Your task to perform on an android device: Add macbook to the cart on amazon.com Image 0: 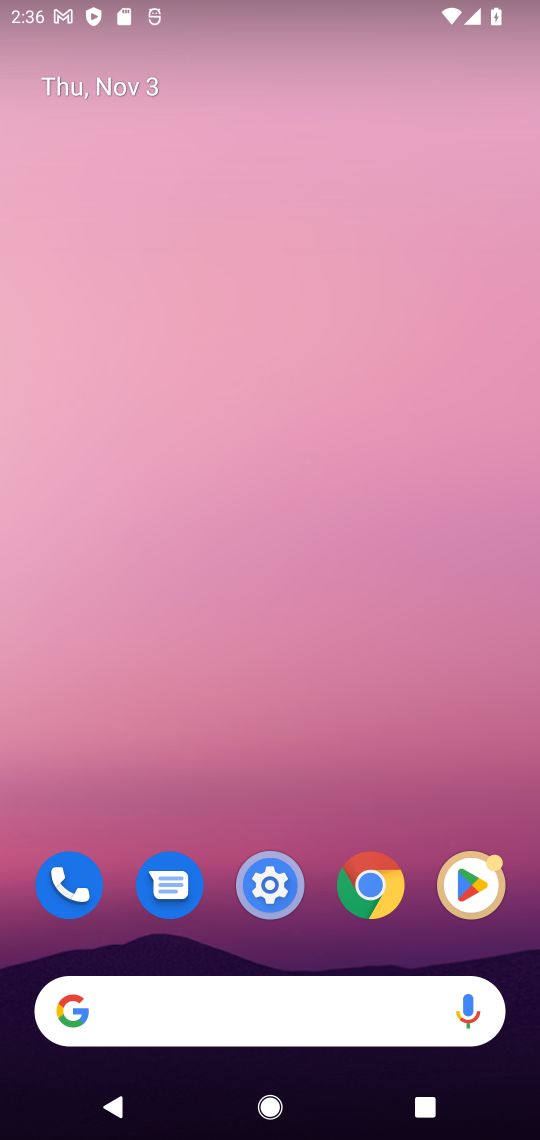
Step 0: drag from (316, 316) to (303, 172)
Your task to perform on an android device: Add macbook to the cart on amazon.com Image 1: 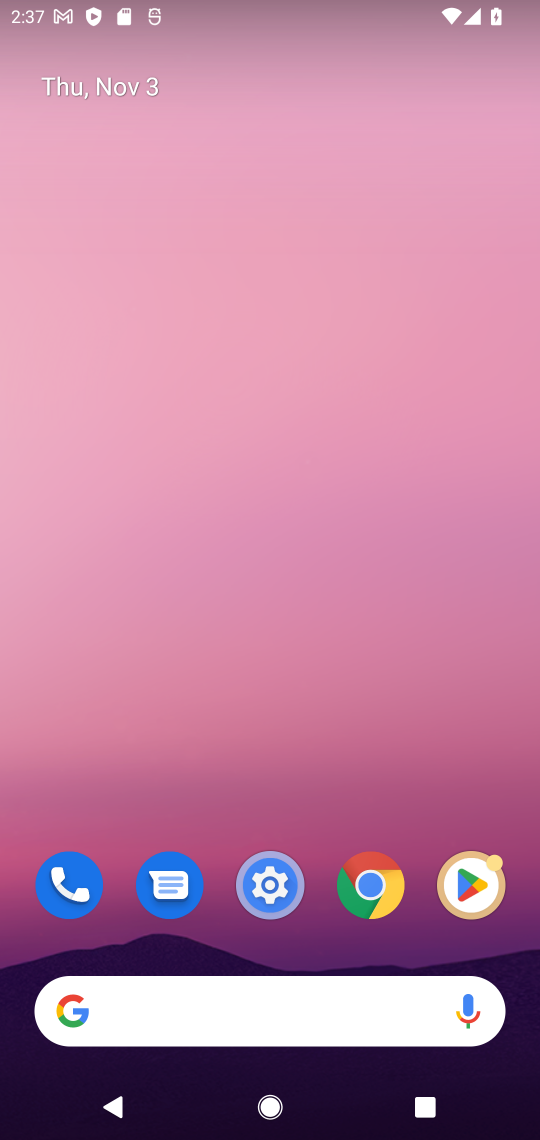
Step 1: drag from (312, 834) to (304, 85)
Your task to perform on an android device: Add macbook to the cart on amazon.com Image 2: 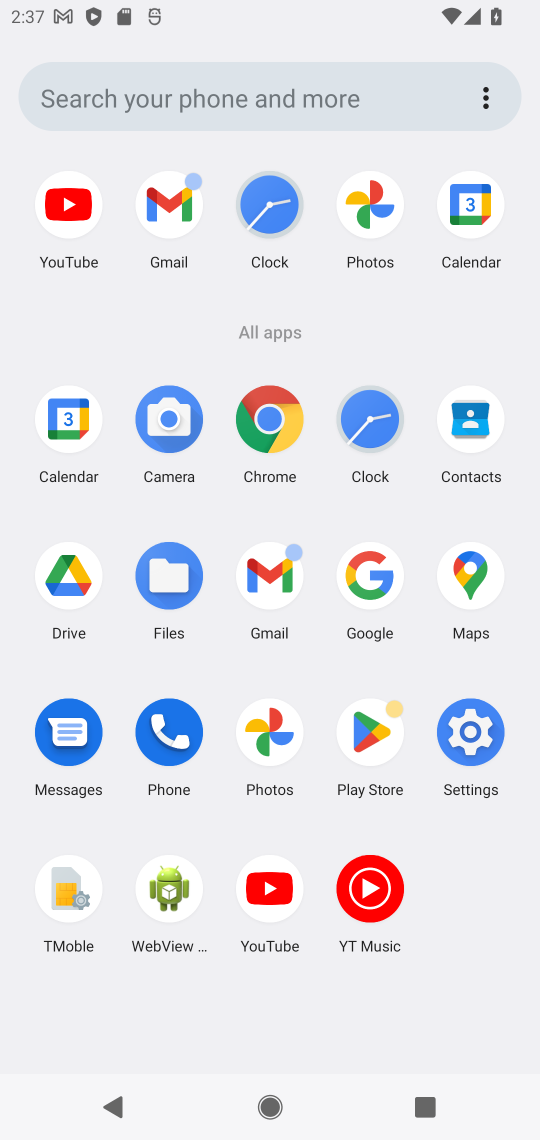
Step 2: click (265, 413)
Your task to perform on an android device: Add macbook to the cart on amazon.com Image 3: 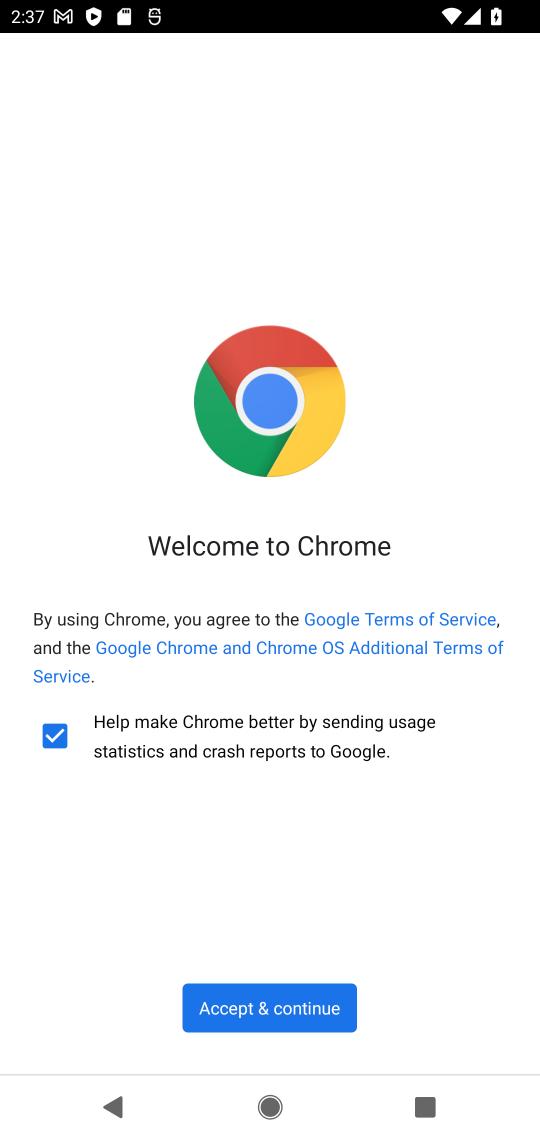
Step 3: click (262, 998)
Your task to perform on an android device: Add macbook to the cart on amazon.com Image 4: 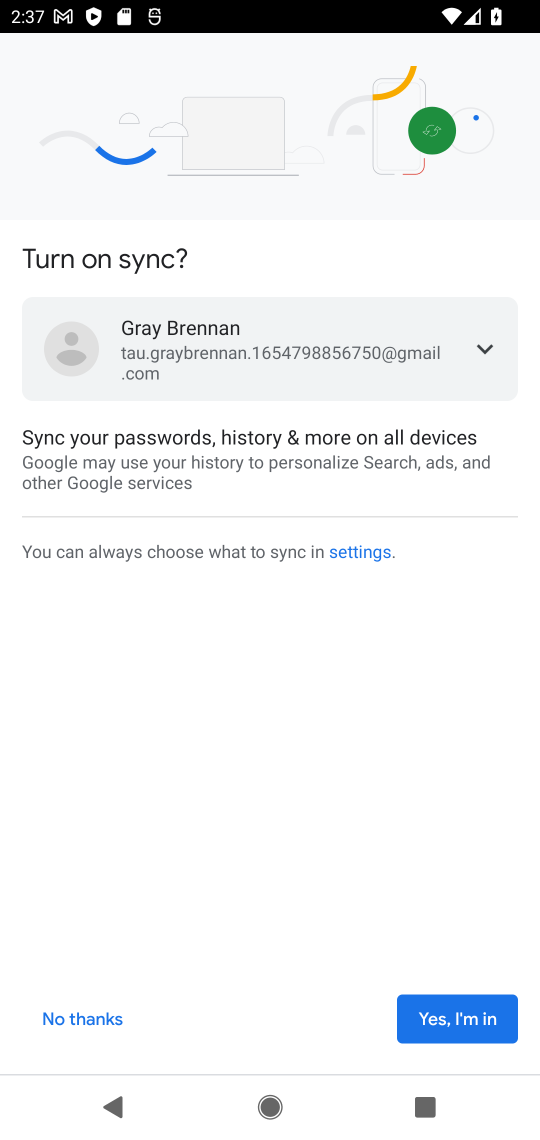
Step 4: click (465, 1014)
Your task to perform on an android device: Add macbook to the cart on amazon.com Image 5: 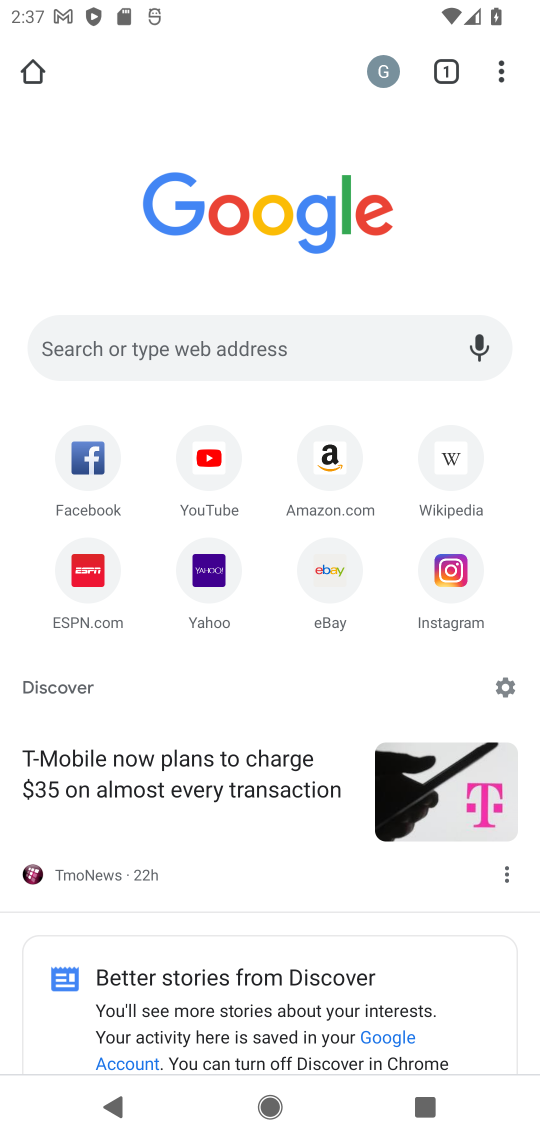
Step 5: click (175, 335)
Your task to perform on an android device: Add macbook to the cart on amazon.com Image 6: 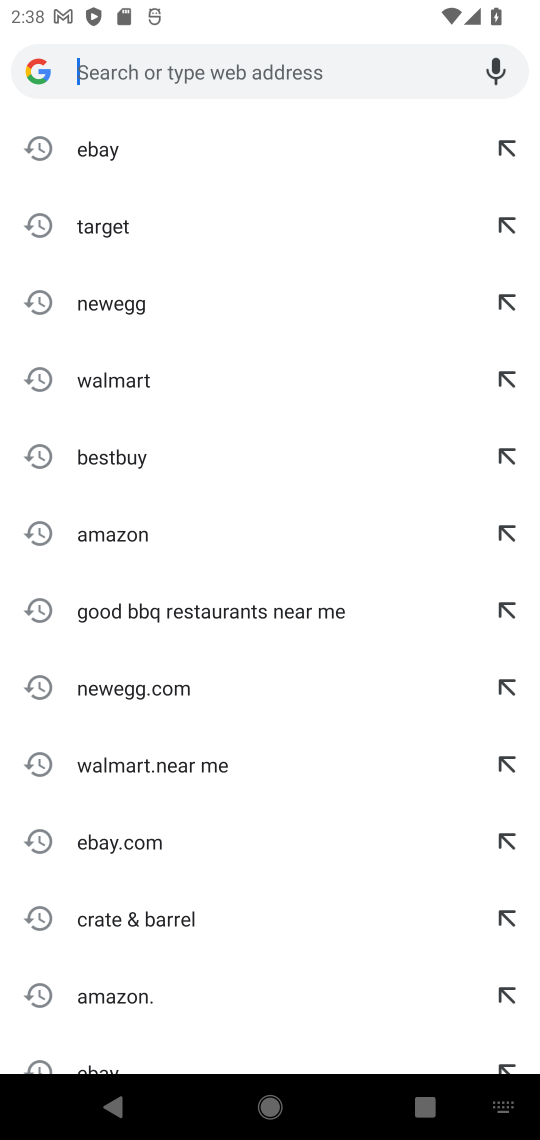
Step 6: click (150, 539)
Your task to perform on an android device: Add macbook to the cart on amazon.com Image 7: 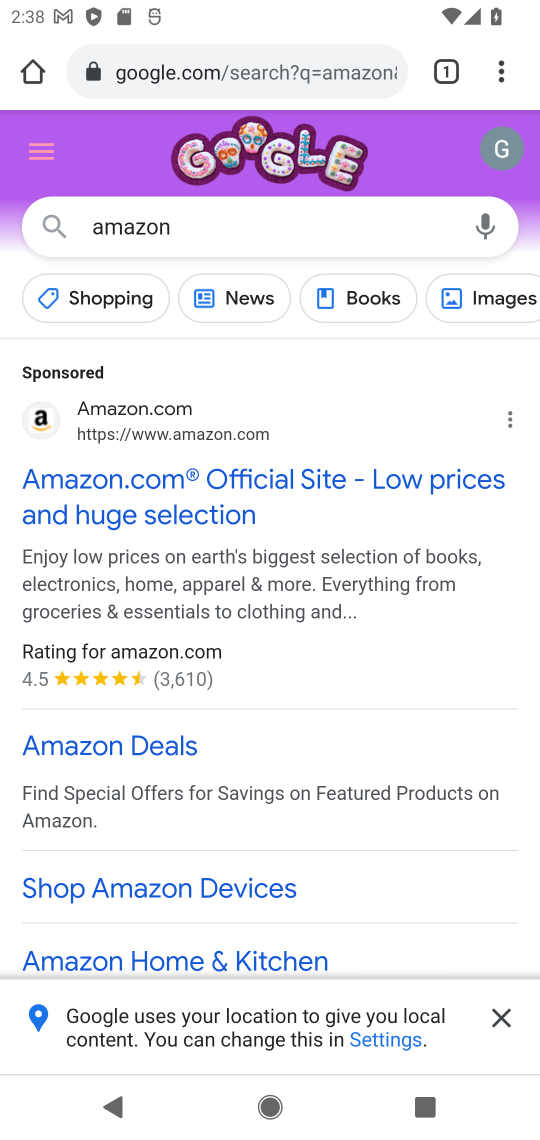
Step 7: click (509, 1015)
Your task to perform on an android device: Add macbook to the cart on amazon.com Image 8: 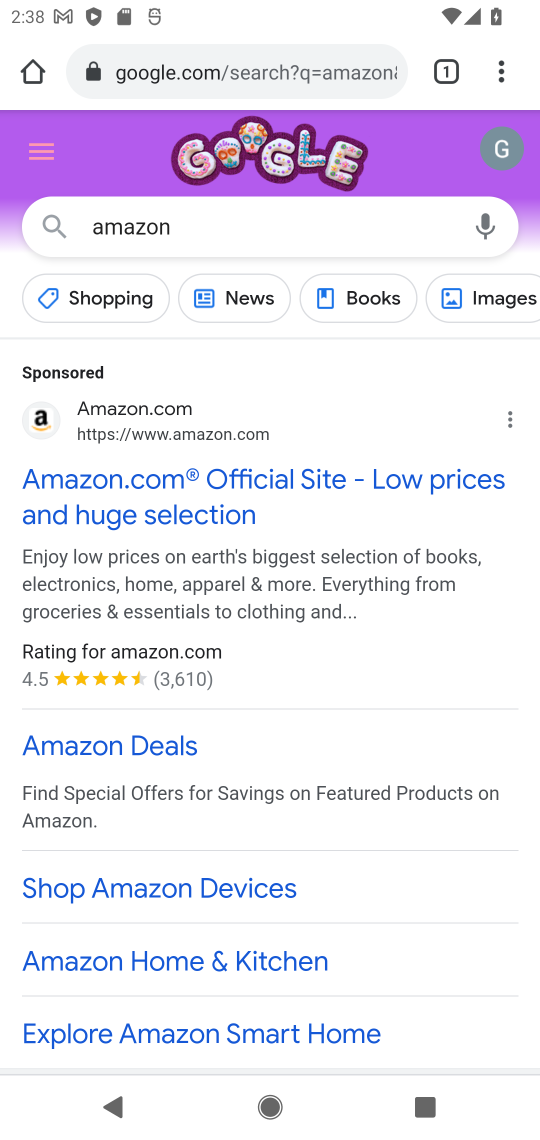
Step 8: click (138, 490)
Your task to perform on an android device: Add macbook to the cart on amazon.com Image 9: 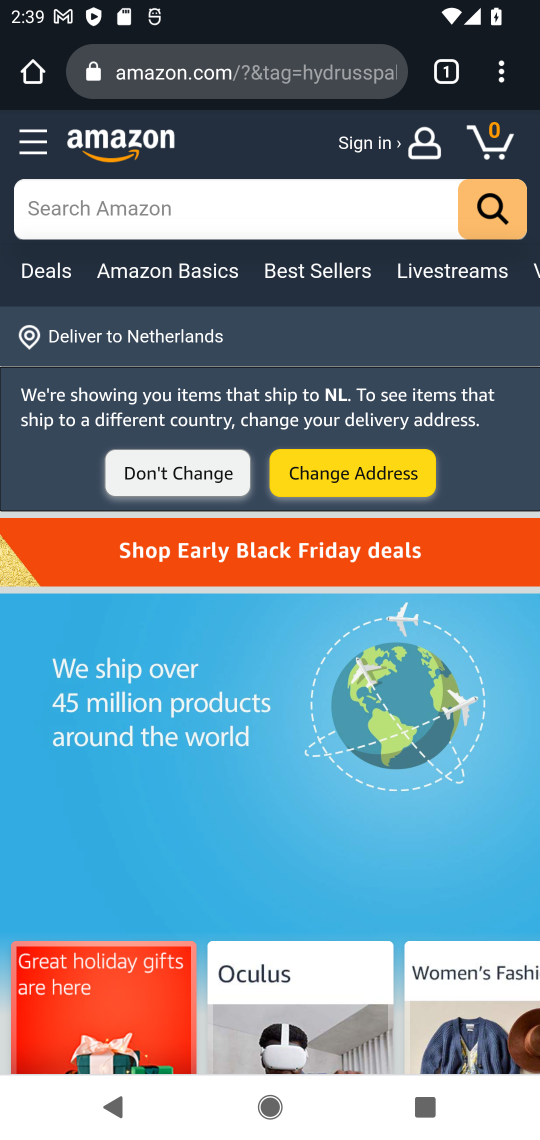
Step 9: click (122, 207)
Your task to perform on an android device: Add macbook to the cart on amazon.com Image 10: 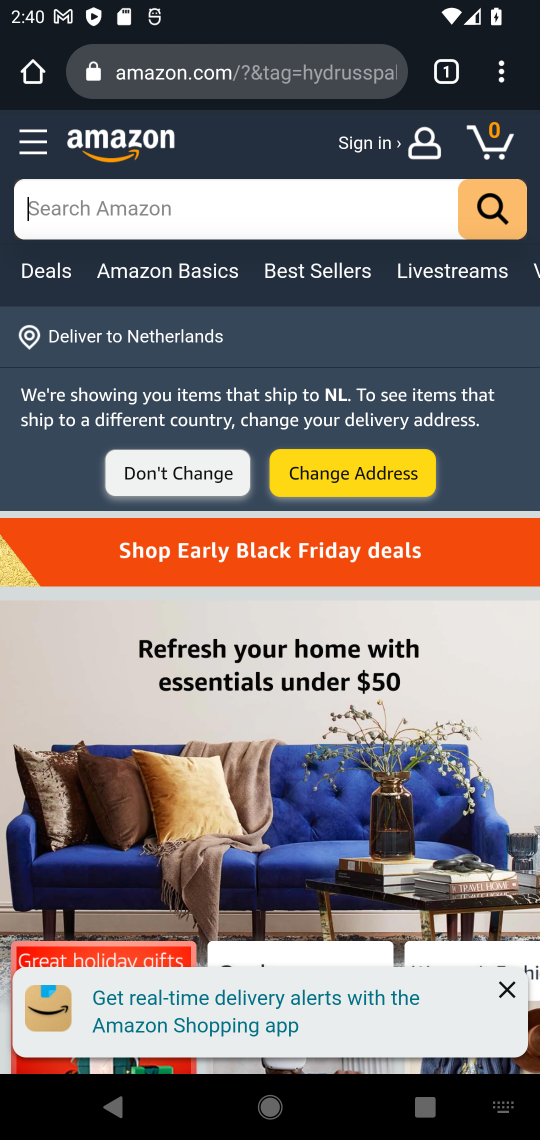
Step 10: type "macbook"
Your task to perform on an android device: Add macbook to the cart on amazon.com Image 11: 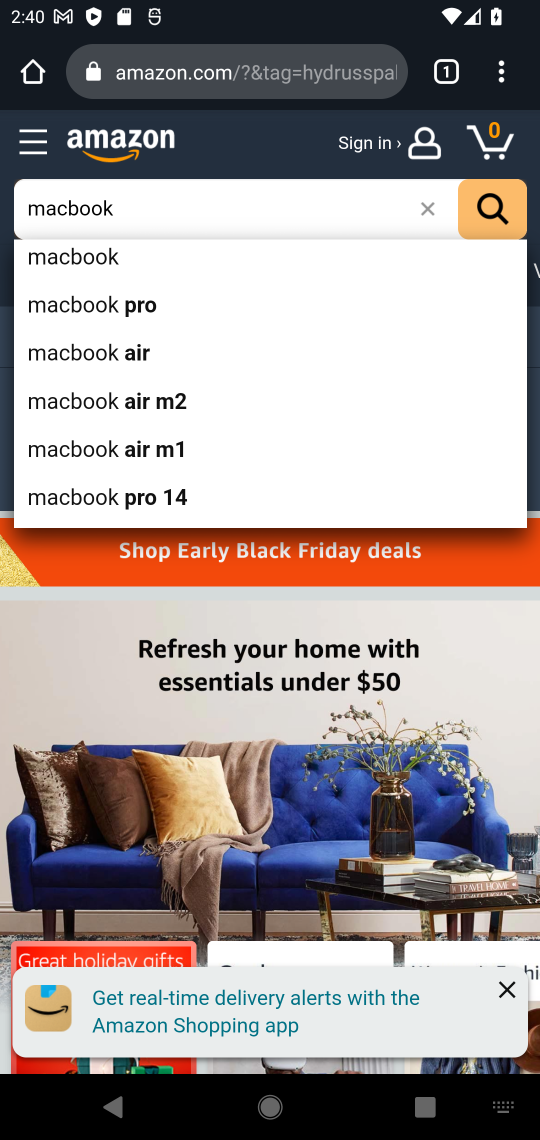
Step 11: click (84, 258)
Your task to perform on an android device: Add macbook to the cart on amazon.com Image 12: 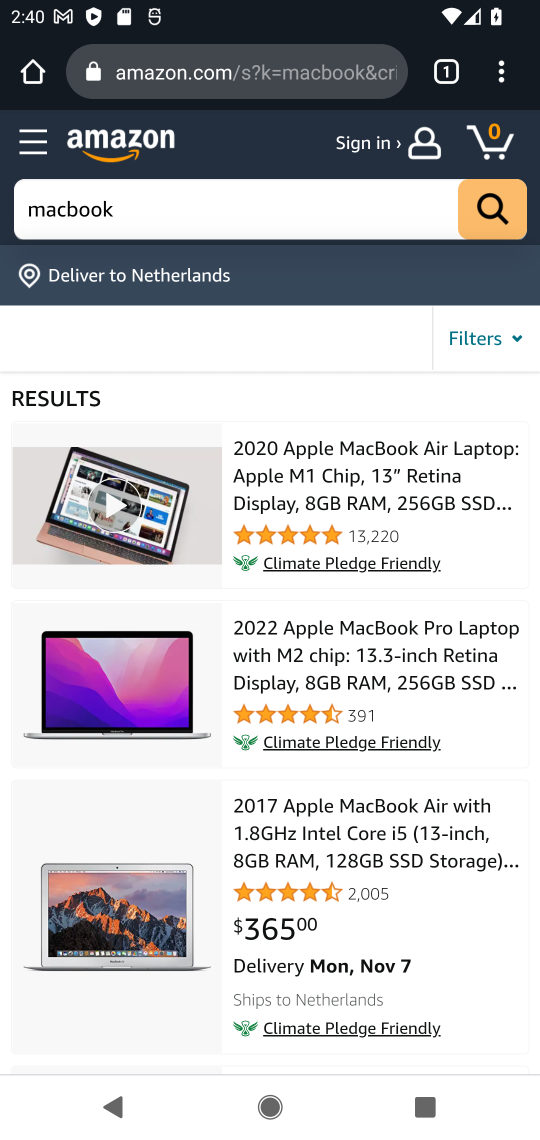
Step 12: click (289, 485)
Your task to perform on an android device: Add macbook to the cart on amazon.com Image 13: 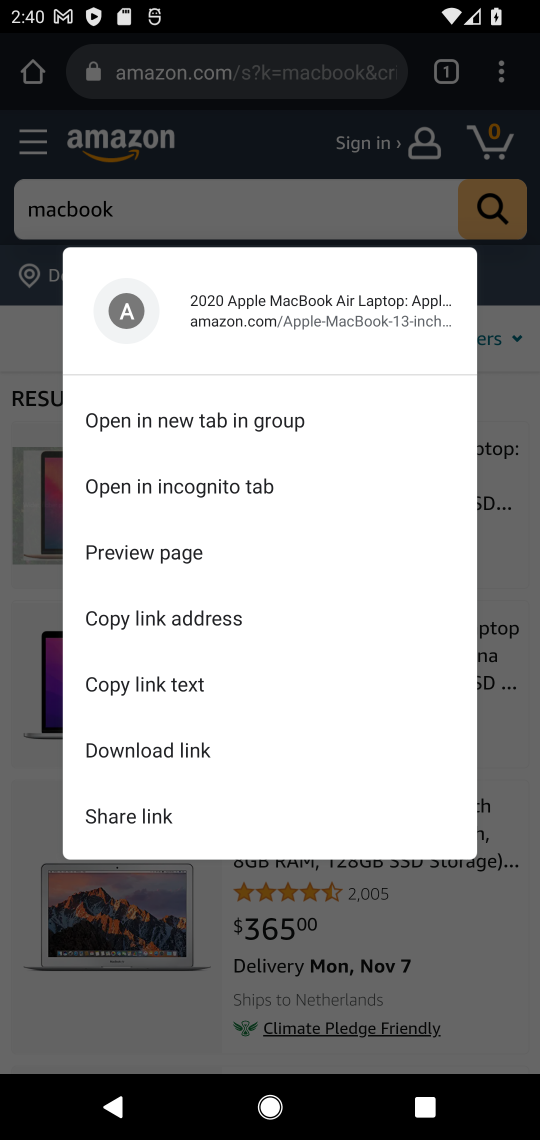
Step 13: click (23, 1017)
Your task to perform on an android device: Add macbook to the cart on amazon.com Image 14: 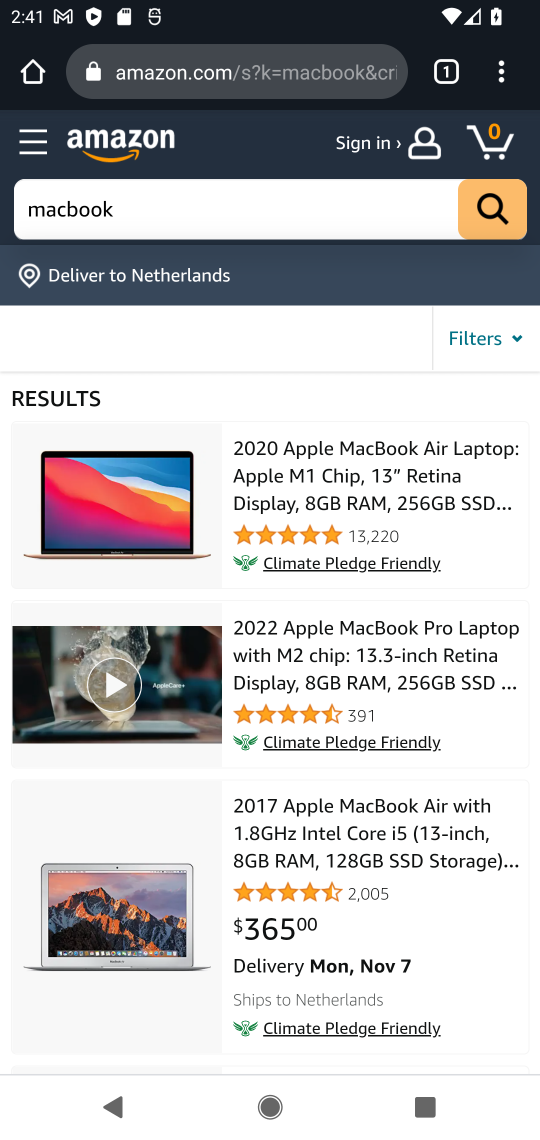
Step 14: click (415, 471)
Your task to perform on an android device: Add macbook to the cart on amazon.com Image 15: 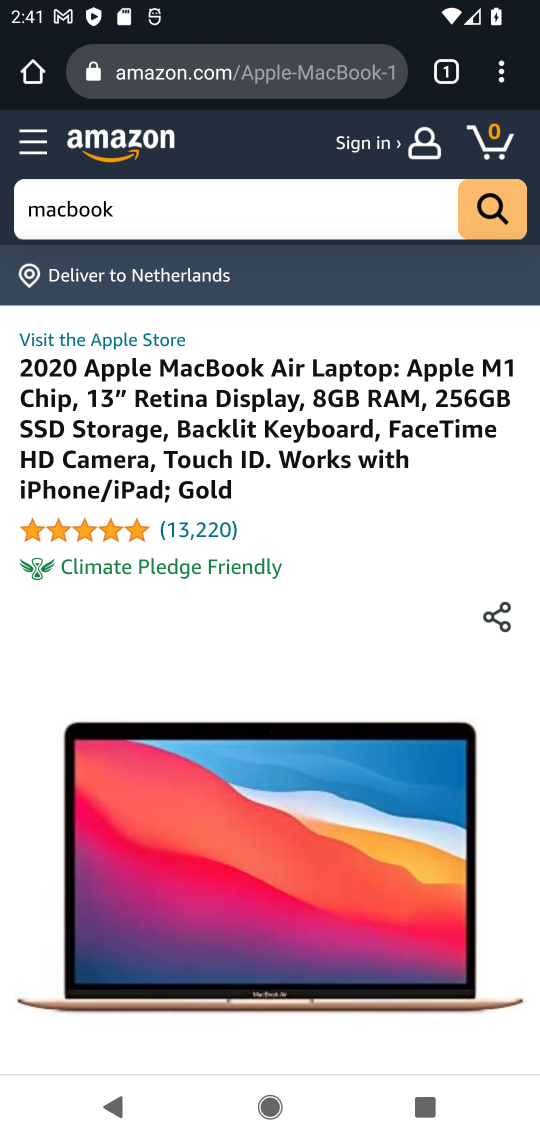
Step 15: drag from (46, 854) to (247, 176)
Your task to perform on an android device: Add macbook to the cart on amazon.com Image 16: 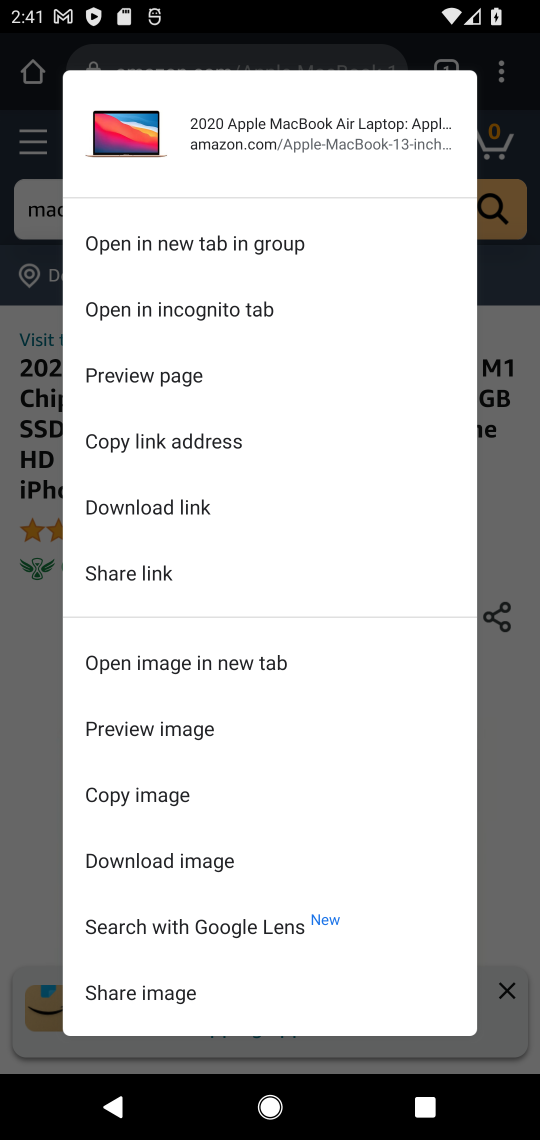
Step 16: click (25, 655)
Your task to perform on an android device: Add macbook to the cart on amazon.com Image 17: 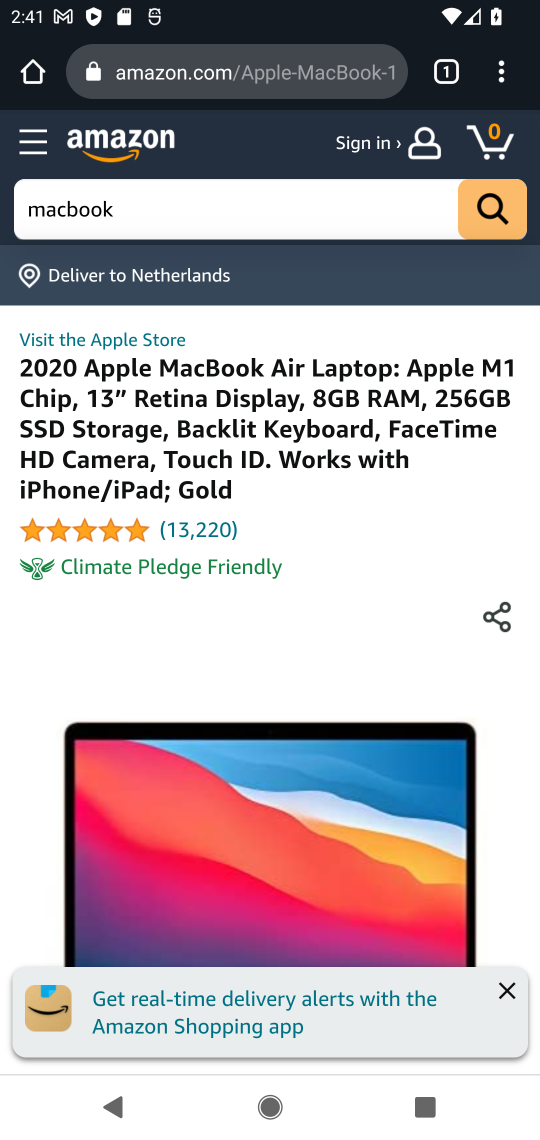
Step 17: drag from (244, 656) to (320, 215)
Your task to perform on an android device: Add macbook to the cart on amazon.com Image 18: 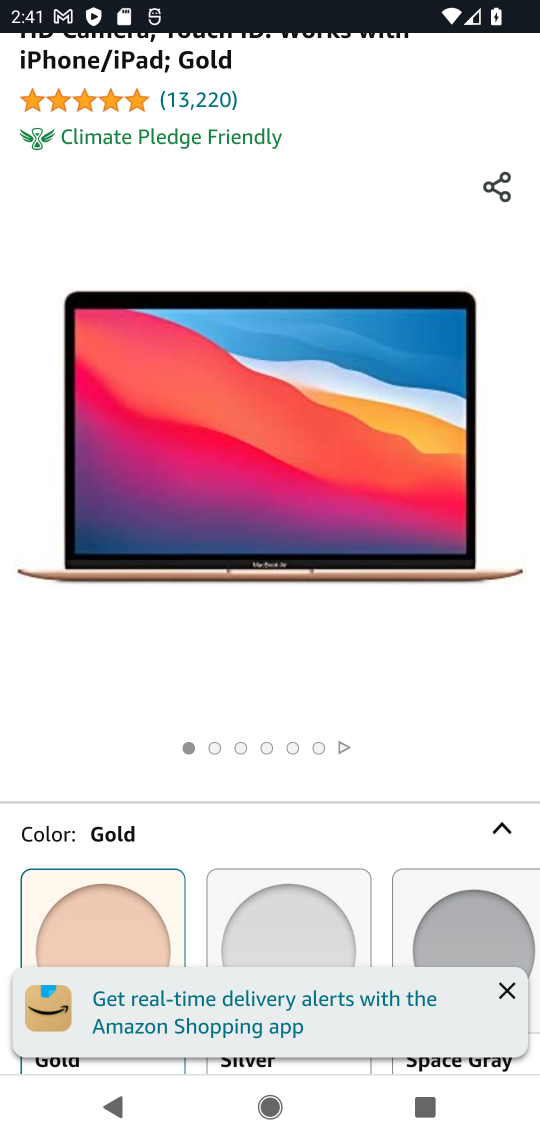
Step 18: drag from (320, 805) to (392, 375)
Your task to perform on an android device: Add macbook to the cart on amazon.com Image 19: 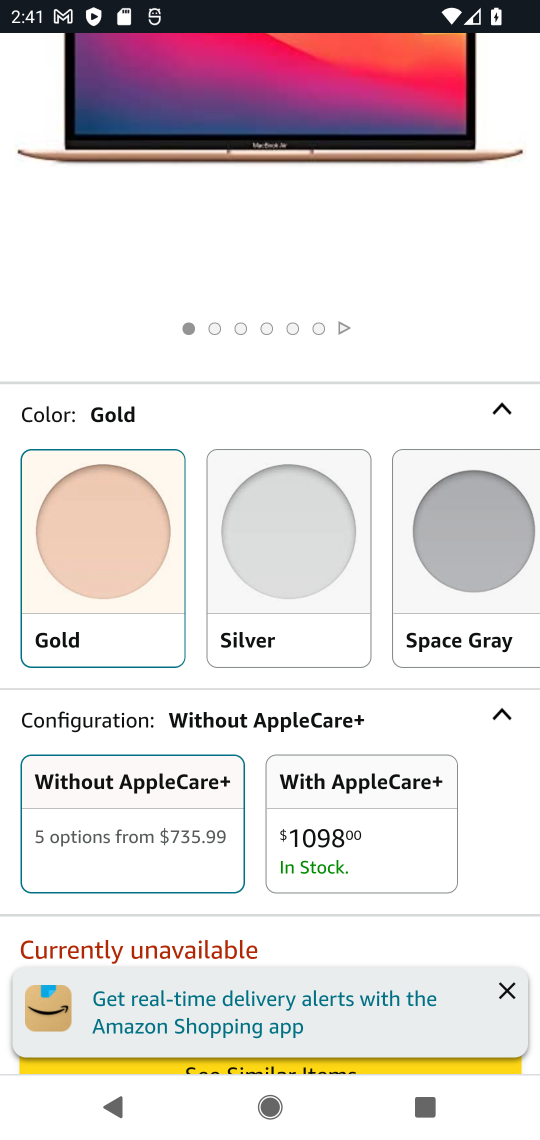
Step 19: drag from (512, 642) to (515, 481)
Your task to perform on an android device: Add macbook to the cart on amazon.com Image 20: 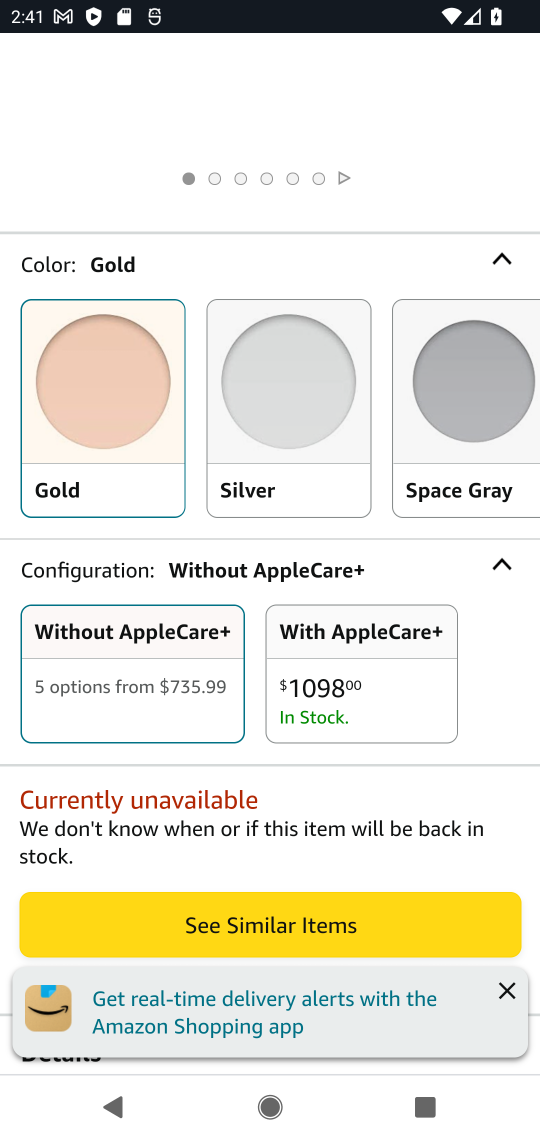
Step 20: click (268, 925)
Your task to perform on an android device: Add macbook to the cart on amazon.com Image 21: 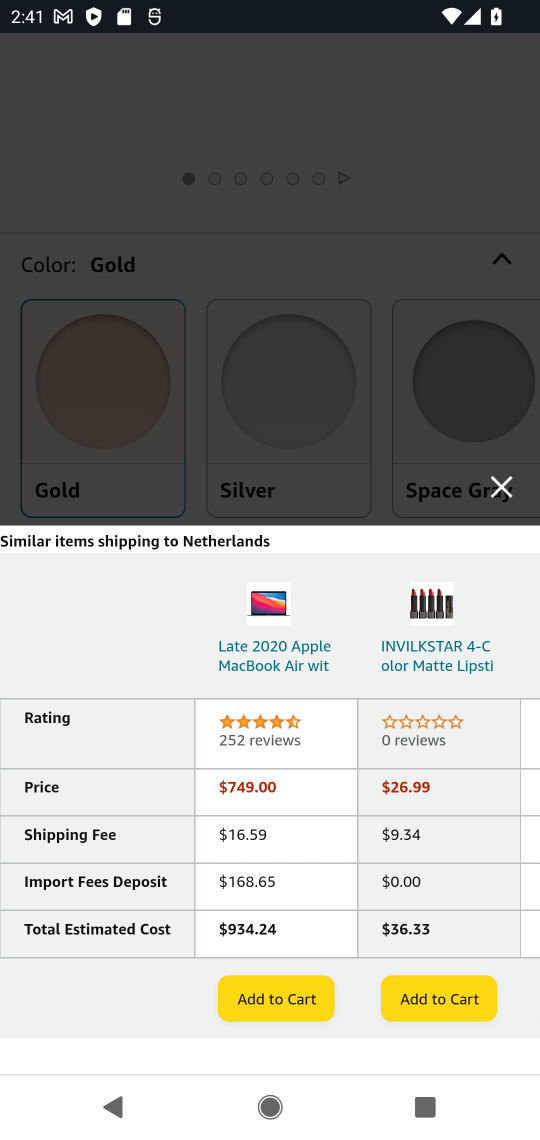
Step 21: click (285, 995)
Your task to perform on an android device: Add macbook to the cart on amazon.com Image 22: 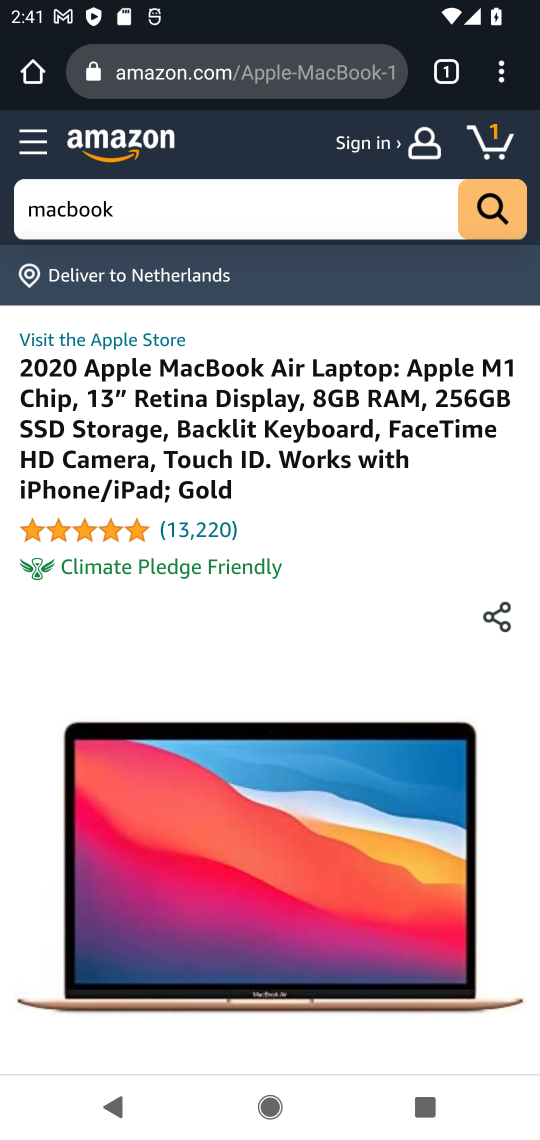
Step 22: drag from (247, 684) to (281, 175)
Your task to perform on an android device: Add macbook to the cart on amazon.com Image 23: 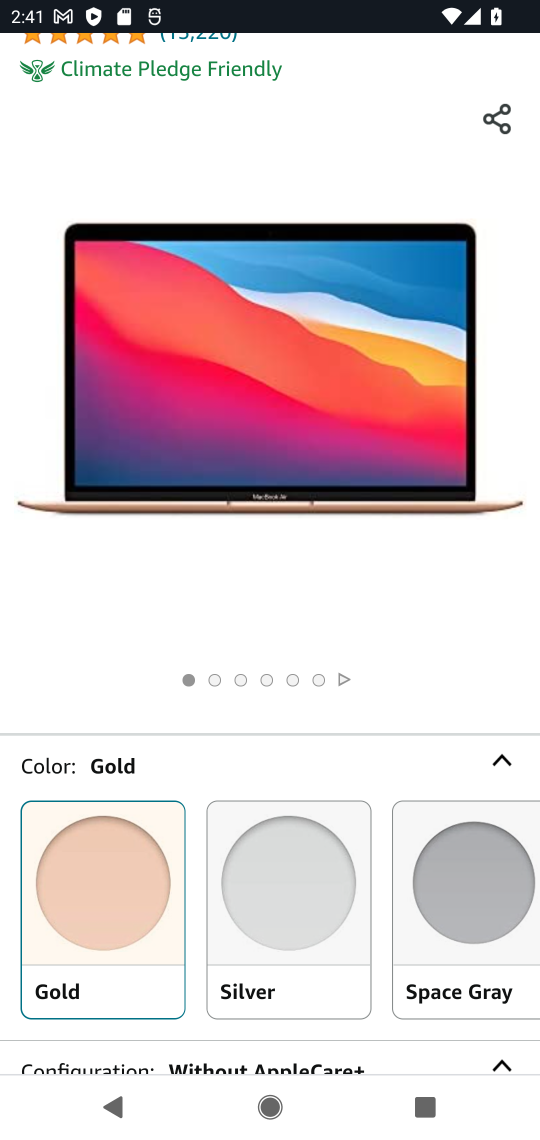
Step 23: drag from (299, 746) to (334, 360)
Your task to perform on an android device: Add macbook to the cart on amazon.com Image 24: 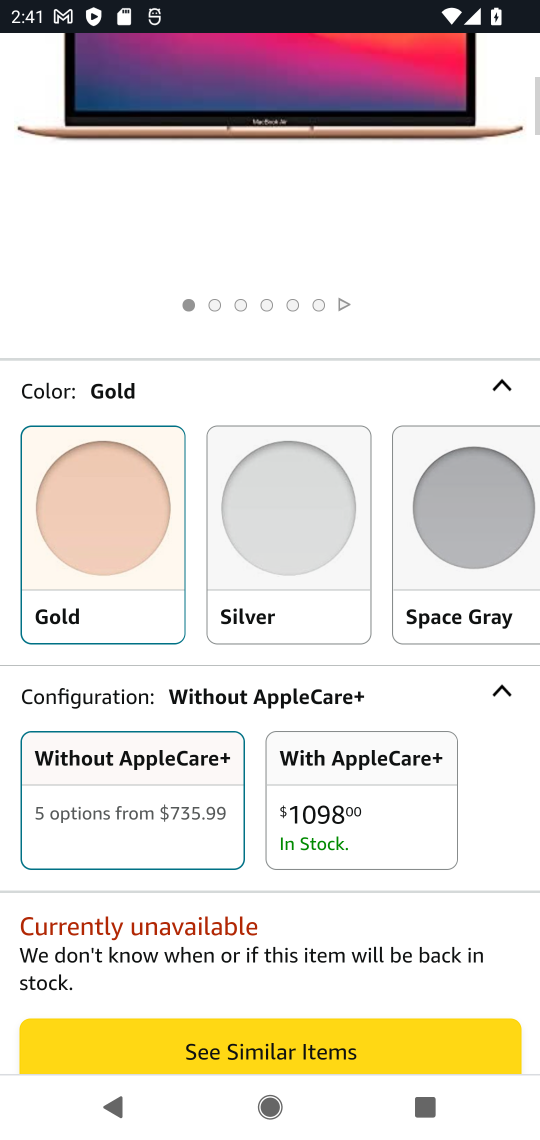
Step 24: drag from (369, 342) to (387, 1110)
Your task to perform on an android device: Add macbook to the cart on amazon.com Image 25: 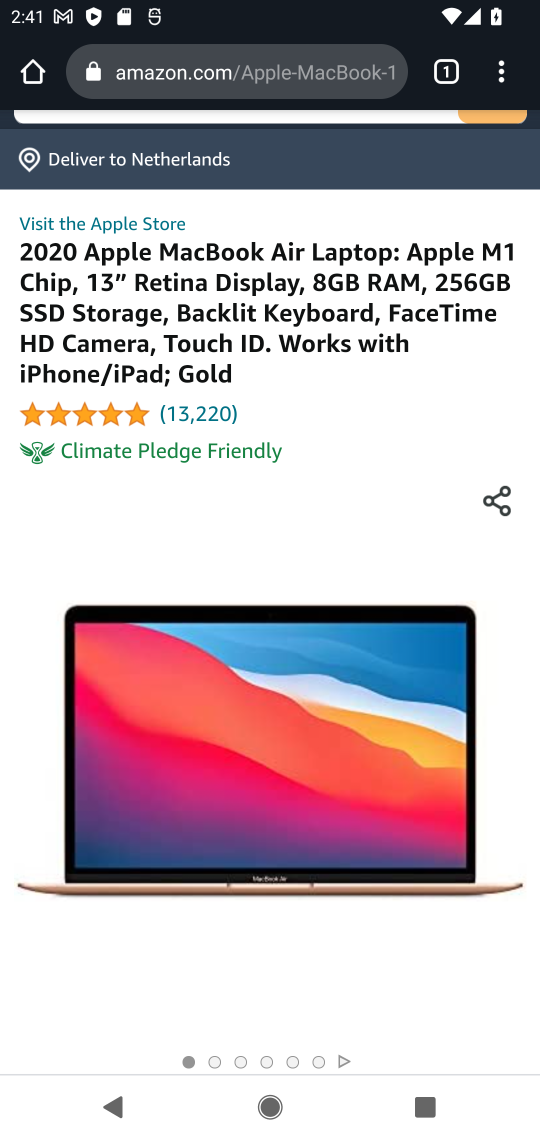
Step 25: drag from (330, 371) to (324, 931)
Your task to perform on an android device: Add macbook to the cart on amazon.com Image 26: 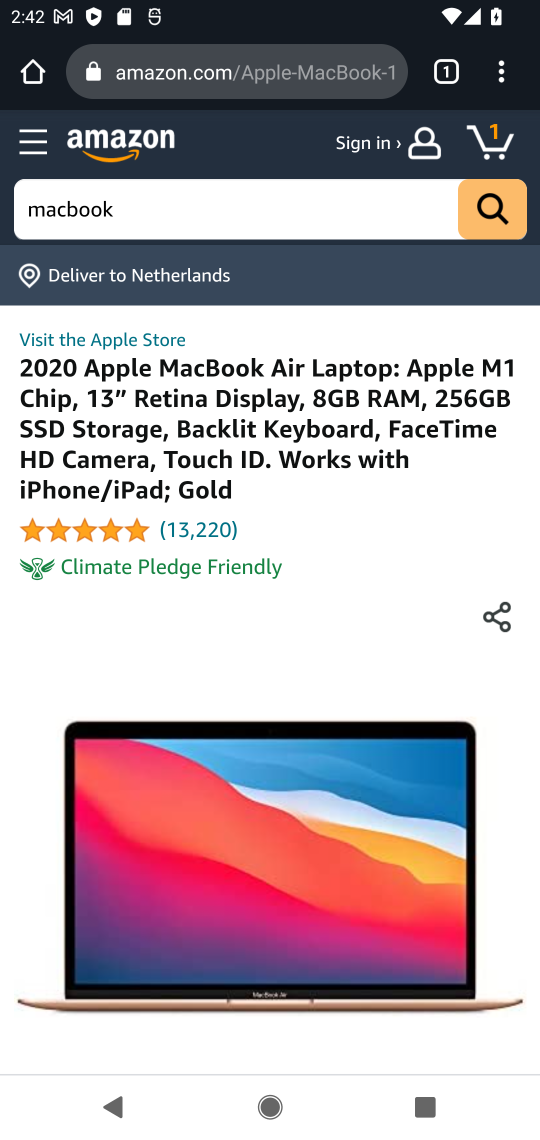
Step 26: click (497, 142)
Your task to perform on an android device: Add macbook to the cart on amazon.com Image 27: 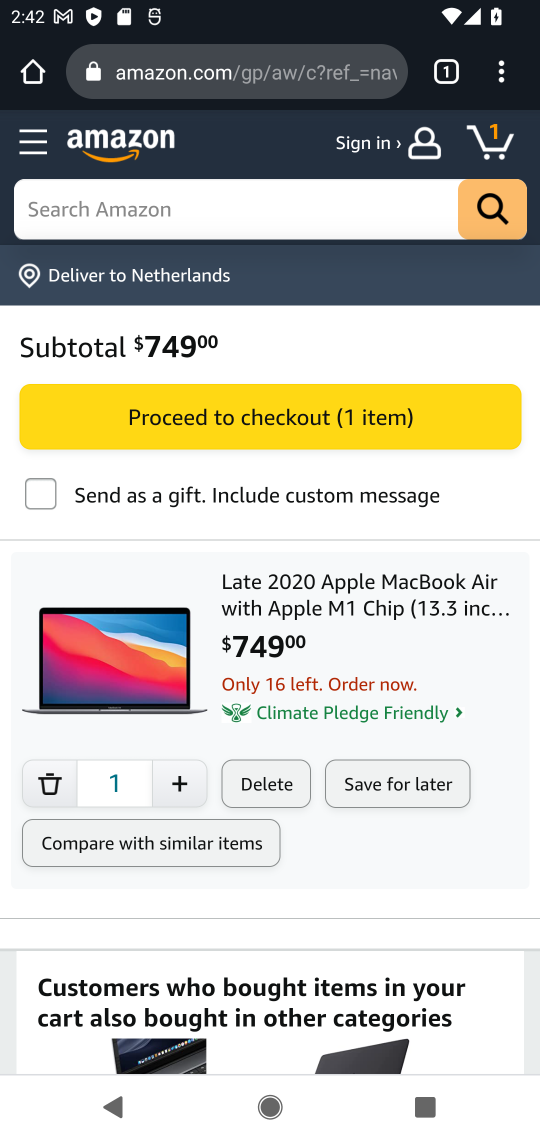
Step 27: click (250, 423)
Your task to perform on an android device: Add macbook to the cart on amazon.com Image 28: 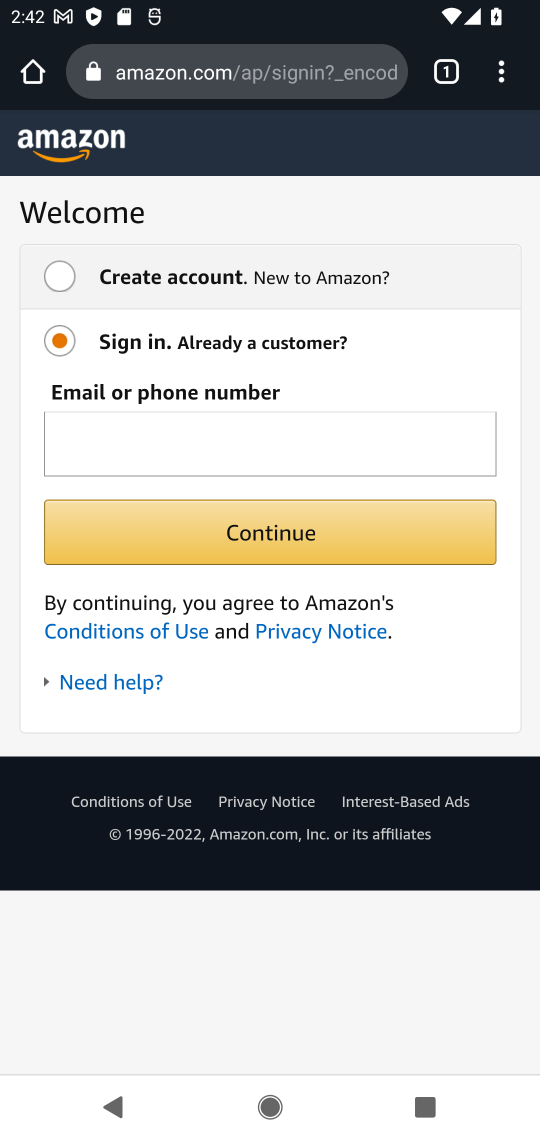
Step 28: task complete